Your task to perform on an android device: delete the emails in spam in the gmail app Image 0: 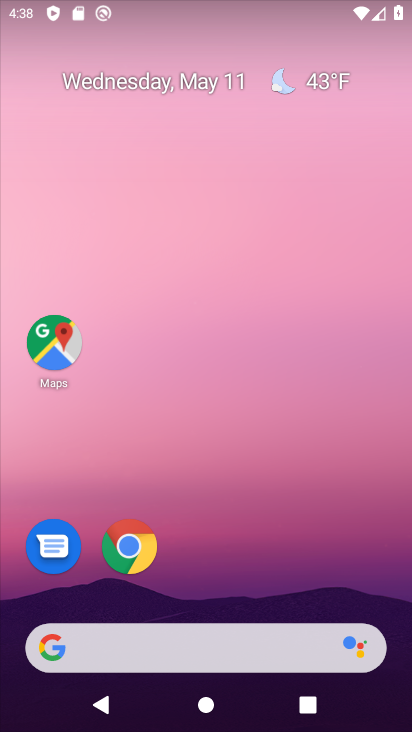
Step 0: drag from (209, 625) to (201, 256)
Your task to perform on an android device: delete the emails in spam in the gmail app Image 1: 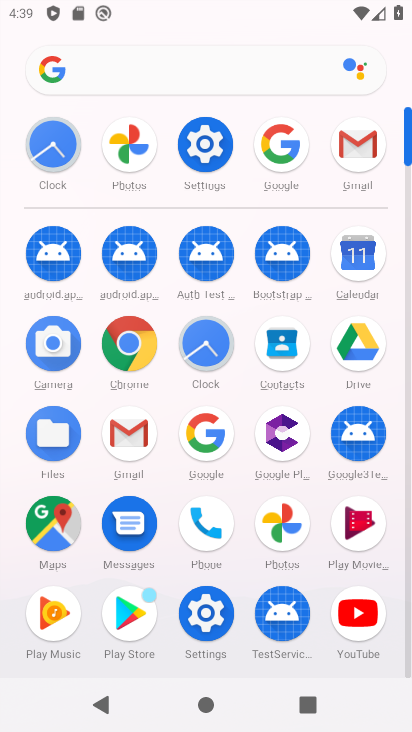
Step 1: click (125, 435)
Your task to perform on an android device: delete the emails in spam in the gmail app Image 2: 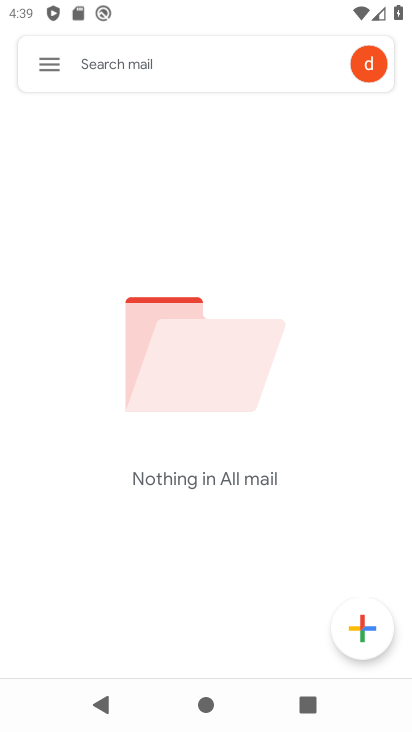
Step 2: click (55, 67)
Your task to perform on an android device: delete the emails in spam in the gmail app Image 3: 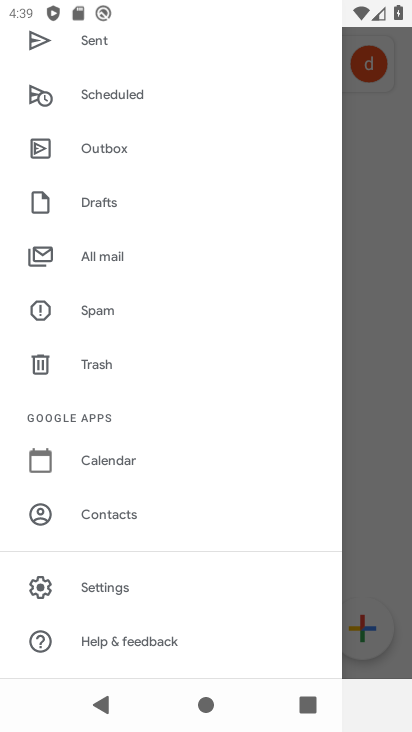
Step 3: click (93, 311)
Your task to perform on an android device: delete the emails in spam in the gmail app Image 4: 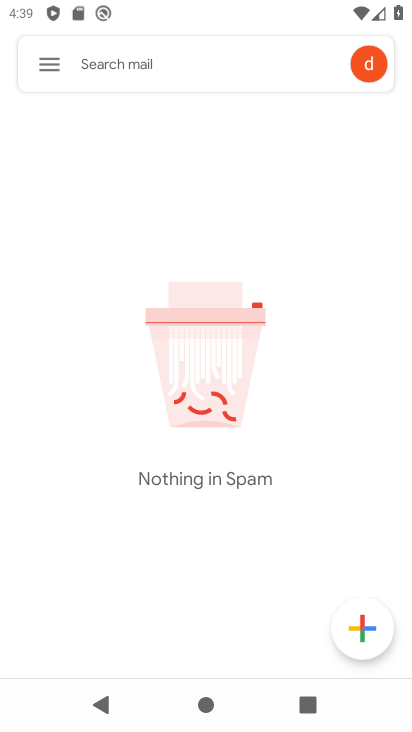
Step 4: task complete